Your task to perform on an android device: all mails in gmail Image 0: 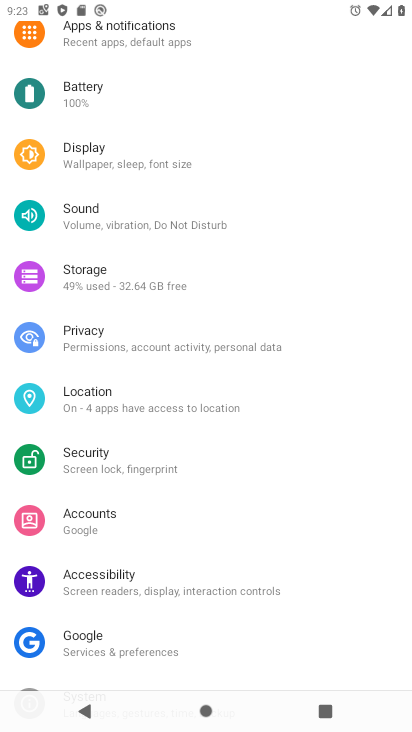
Step 0: press home button
Your task to perform on an android device: all mails in gmail Image 1: 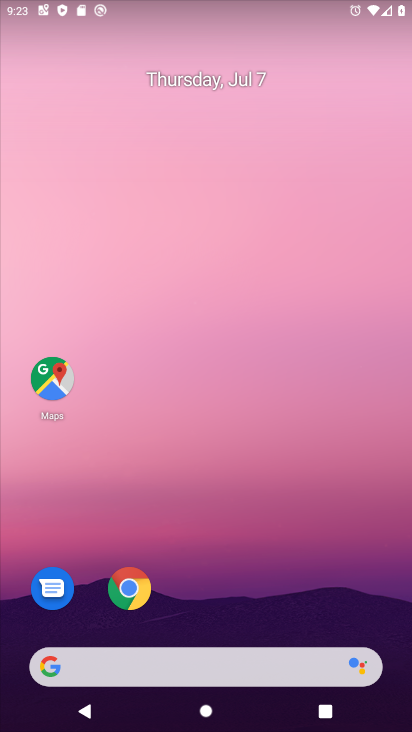
Step 1: drag from (220, 634) to (246, 73)
Your task to perform on an android device: all mails in gmail Image 2: 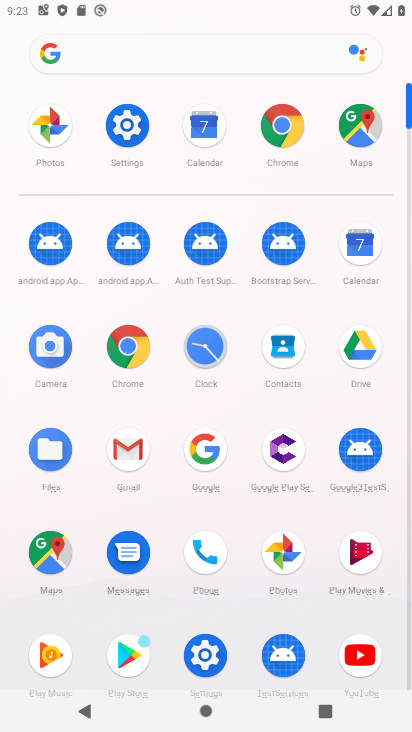
Step 2: click (123, 455)
Your task to perform on an android device: all mails in gmail Image 3: 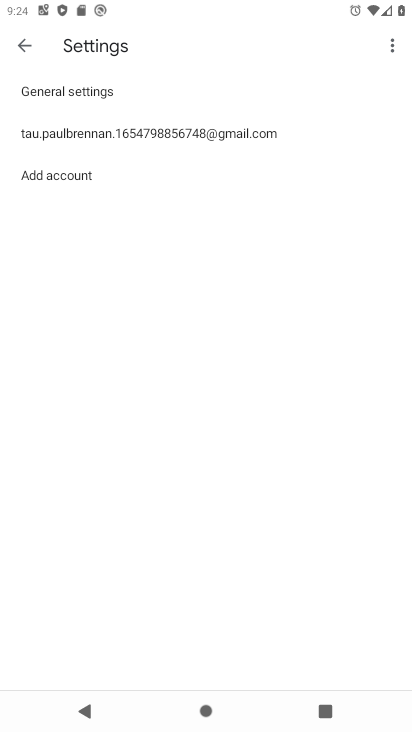
Step 3: click (23, 44)
Your task to perform on an android device: all mails in gmail Image 4: 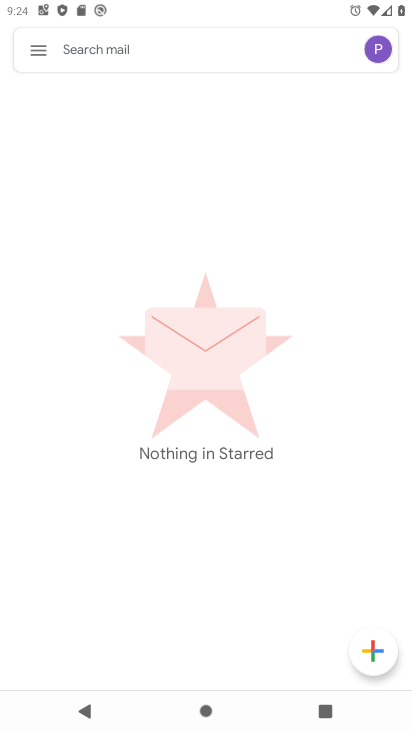
Step 4: click (35, 47)
Your task to perform on an android device: all mails in gmail Image 5: 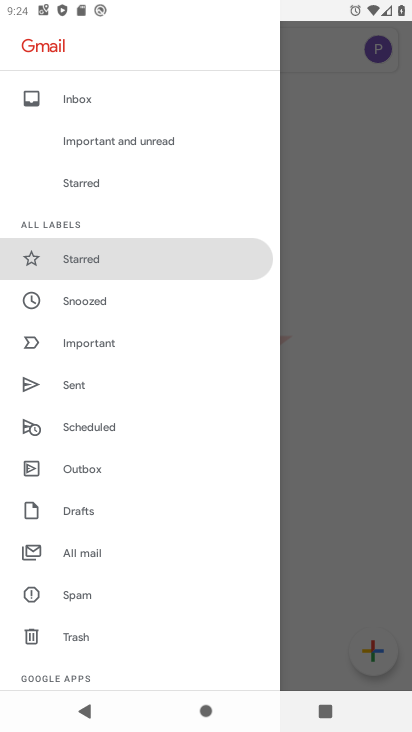
Step 5: click (97, 553)
Your task to perform on an android device: all mails in gmail Image 6: 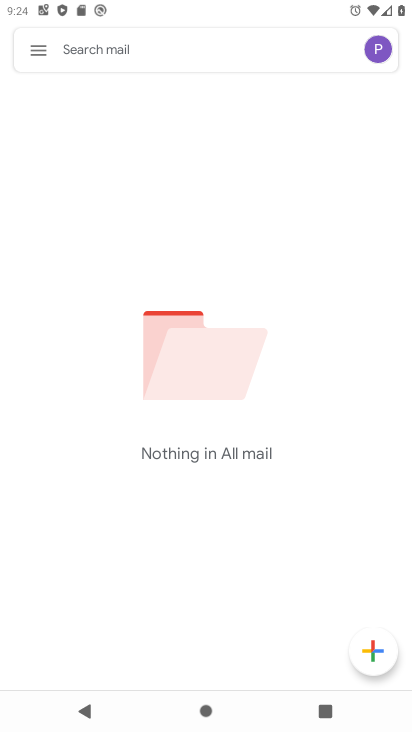
Step 6: task complete